Your task to perform on an android device: Open Chrome and go to the settings page Image 0: 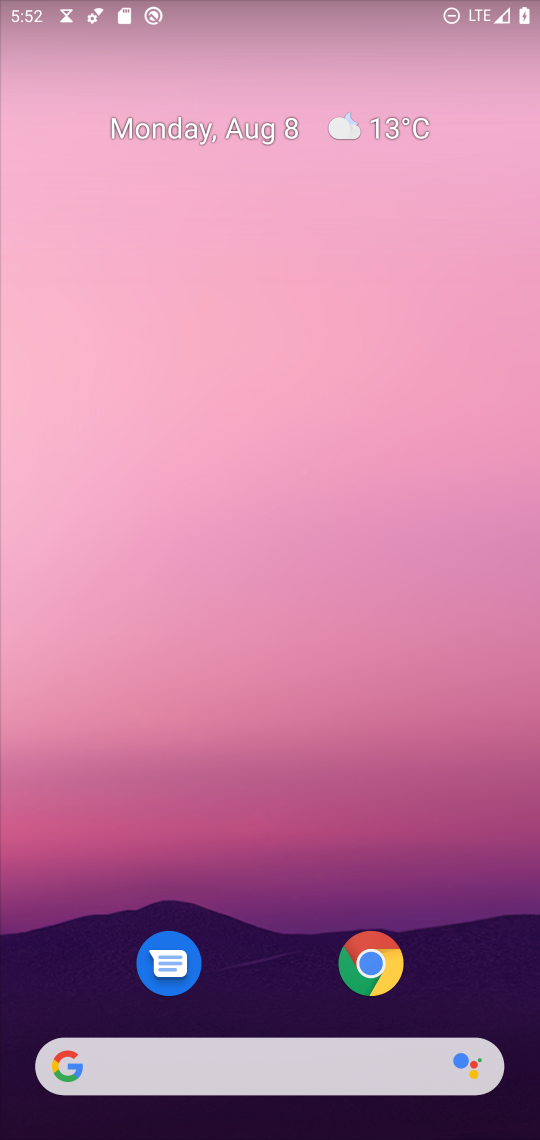
Step 0: press home button
Your task to perform on an android device: Open Chrome and go to the settings page Image 1: 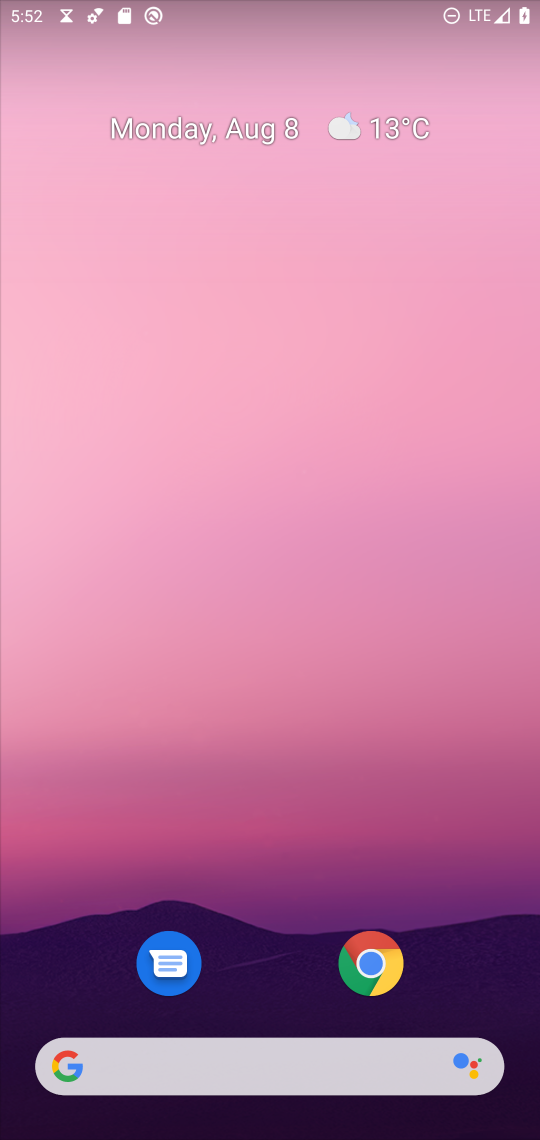
Step 1: click (386, 953)
Your task to perform on an android device: Open Chrome and go to the settings page Image 2: 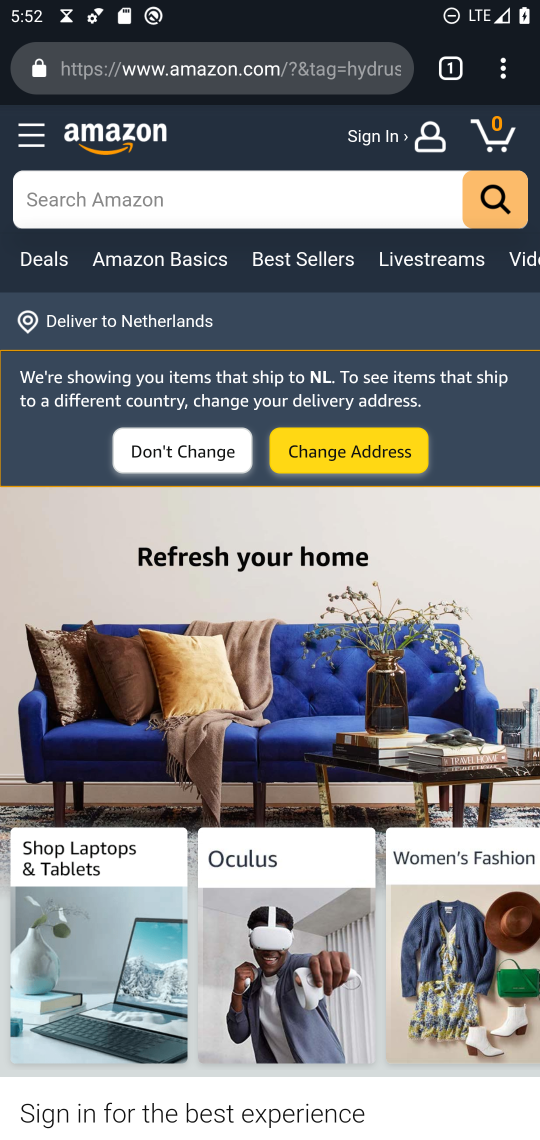
Step 2: click (492, 65)
Your task to perform on an android device: Open Chrome and go to the settings page Image 3: 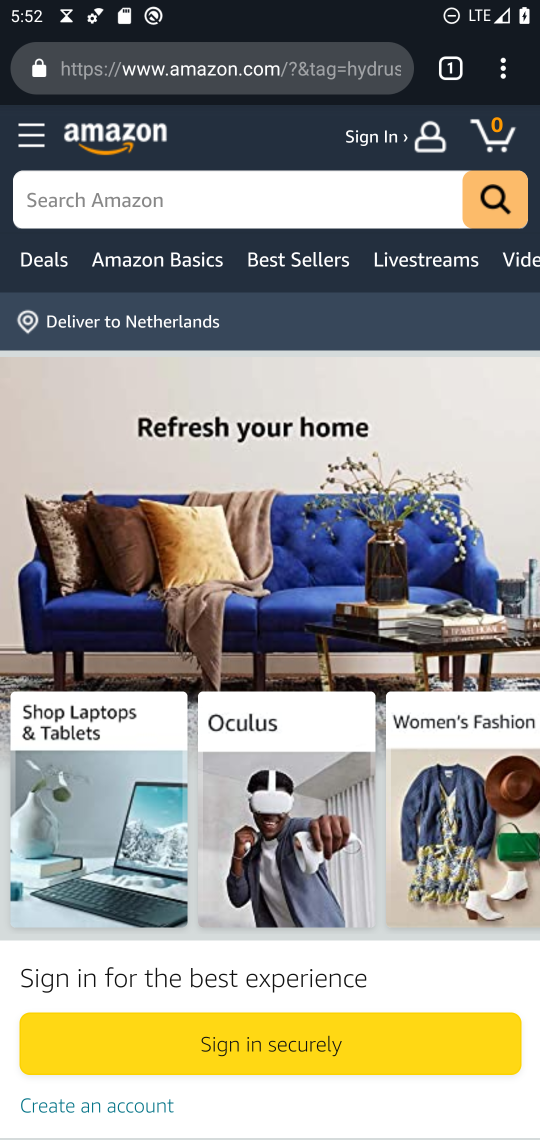
Step 3: click (506, 68)
Your task to perform on an android device: Open Chrome and go to the settings page Image 4: 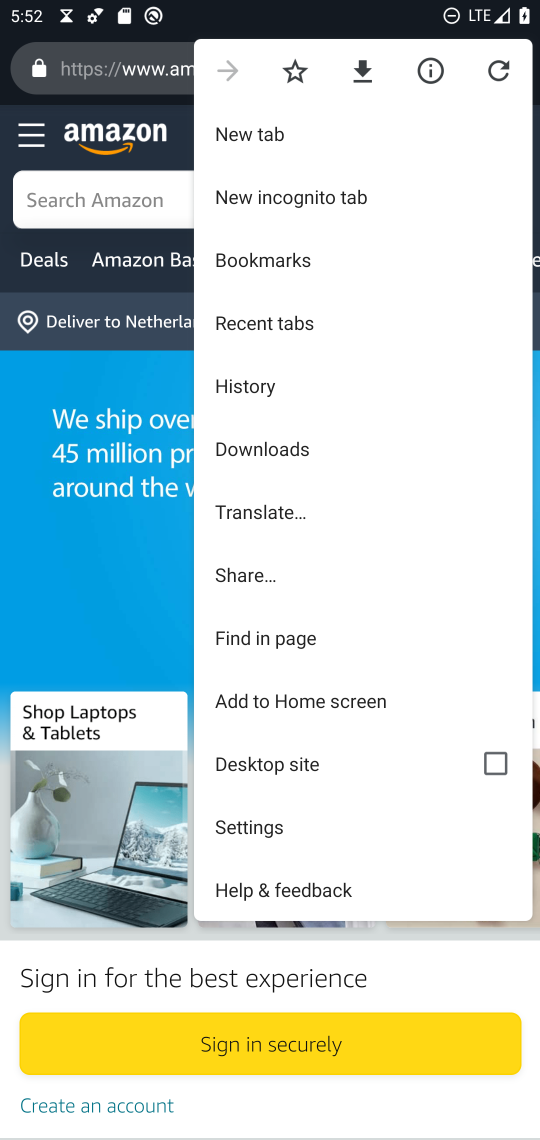
Step 4: click (269, 838)
Your task to perform on an android device: Open Chrome and go to the settings page Image 5: 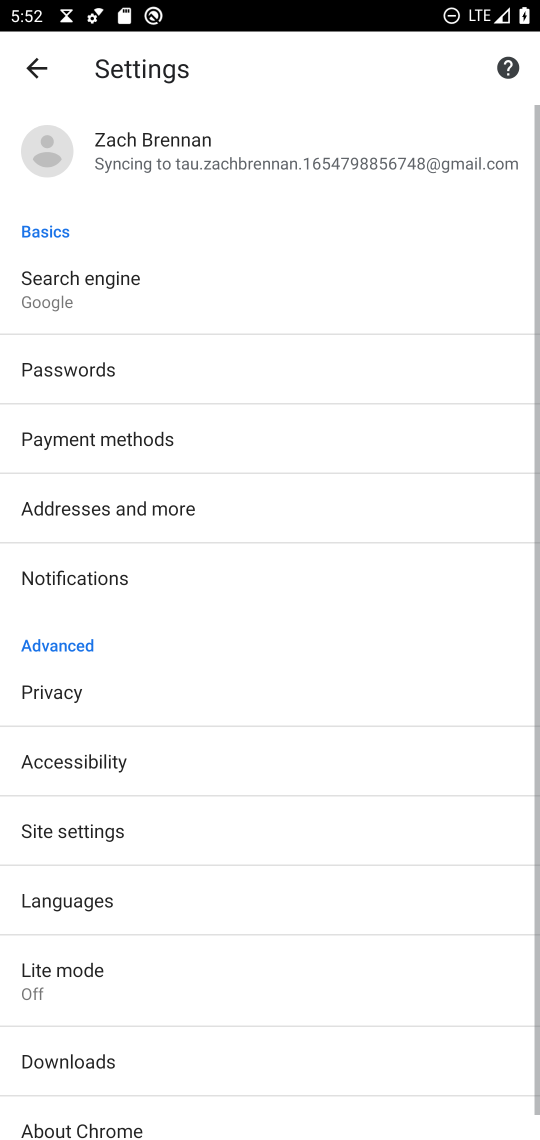
Step 5: task complete